Your task to perform on an android device: allow cookies in the chrome app Image 0: 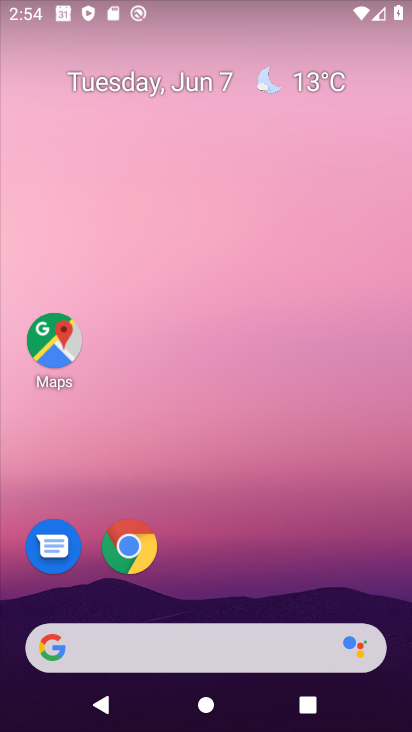
Step 0: click (136, 539)
Your task to perform on an android device: allow cookies in the chrome app Image 1: 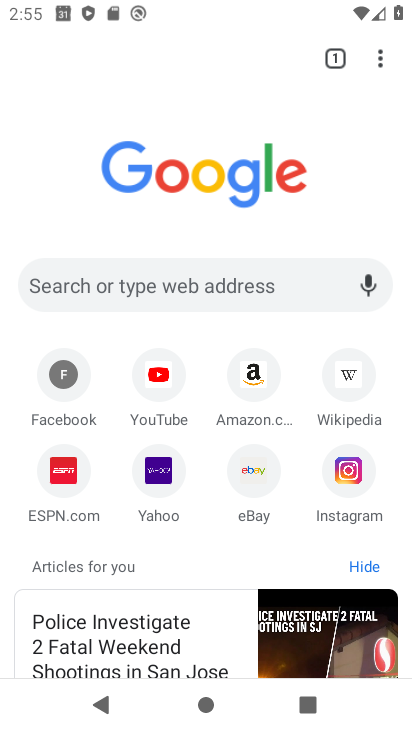
Step 1: click (380, 62)
Your task to perform on an android device: allow cookies in the chrome app Image 2: 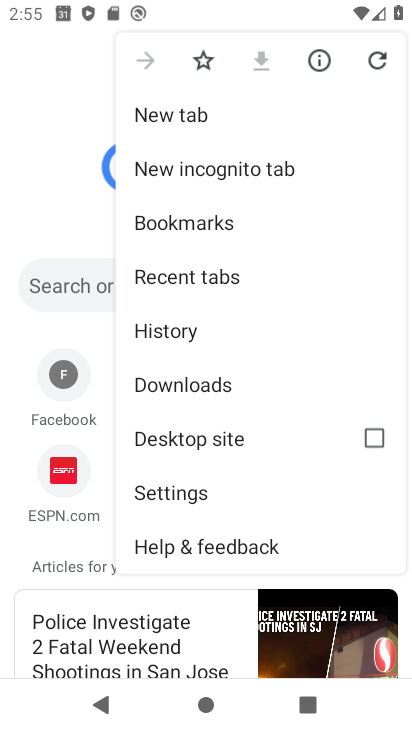
Step 2: click (192, 492)
Your task to perform on an android device: allow cookies in the chrome app Image 3: 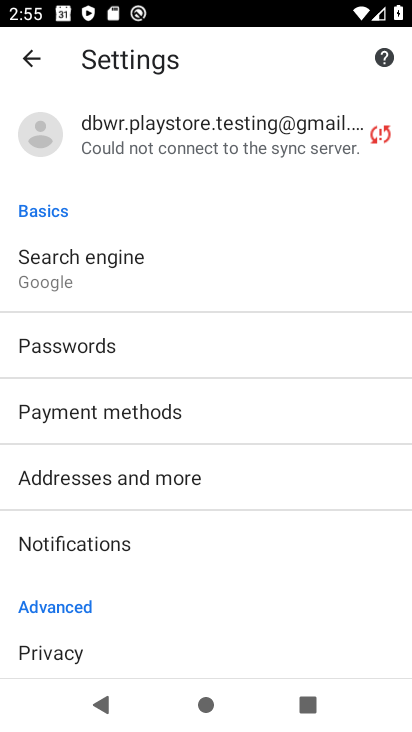
Step 3: drag from (127, 513) to (156, 261)
Your task to perform on an android device: allow cookies in the chrome app Image 4: 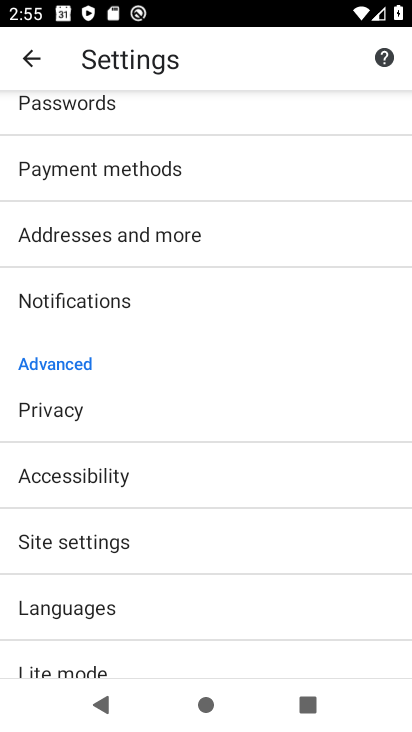
Step 4: click (84, 550)
Your task to perform on an android device: allow cookies in the chrome app Image 5: 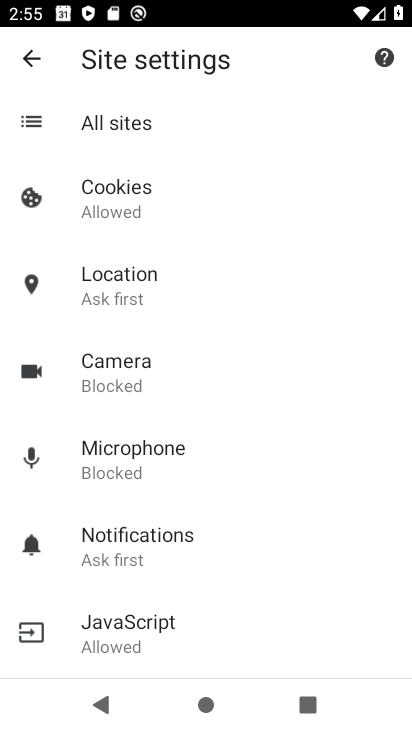
Step 5: click (144, 193)
Your task to perform on an android device: allow cookies in the chrome app Image 6: 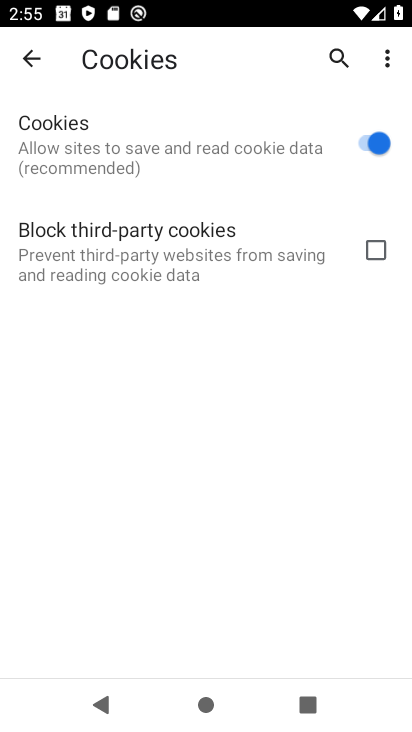
Step 6: task complete